Your task to perform on an android device: toggle improve location accuracy Image 0: 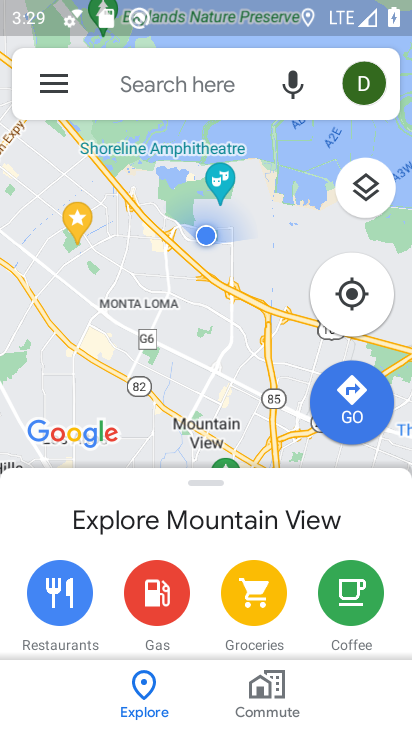
Step 0: press home button
Your task to perform on an android device: toggle improve location accuracy Image 1: 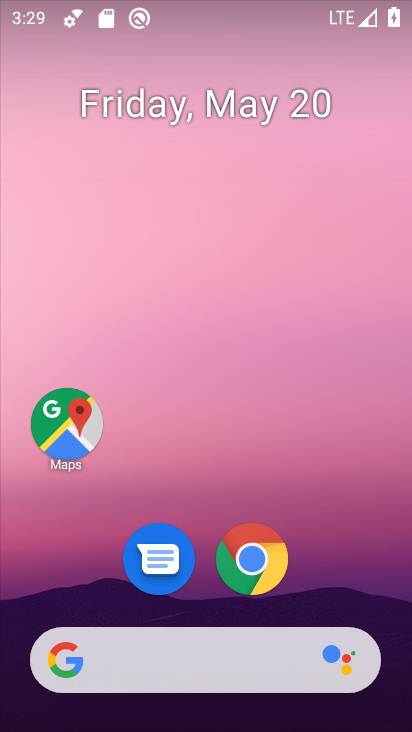
Step 1: drag from (234, 475) to (240, 64)
Your task to perform on an android device: toggle improve location accuracy Image 2: 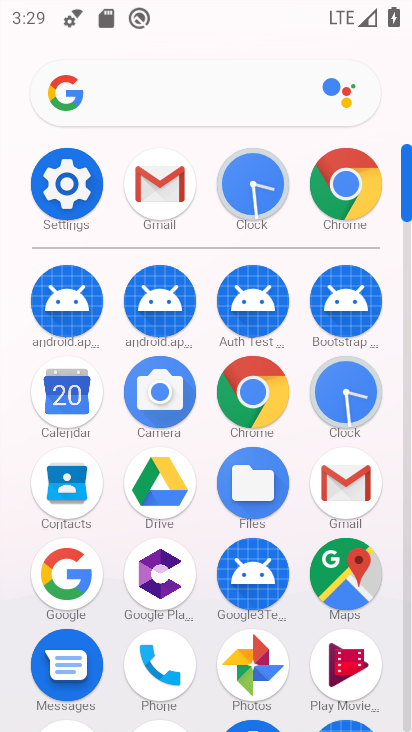
Step 2: click (72, 203)
Your task to perform on an android device: toggle improve location accuracy Image 3: 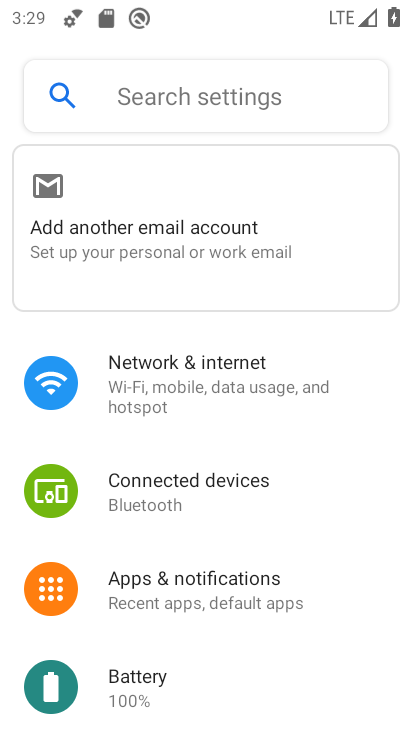
Step 3: drag from (200, 562) to (272, 127)
Your task to perform on an android device: toggle improve location accuracy Image 4: 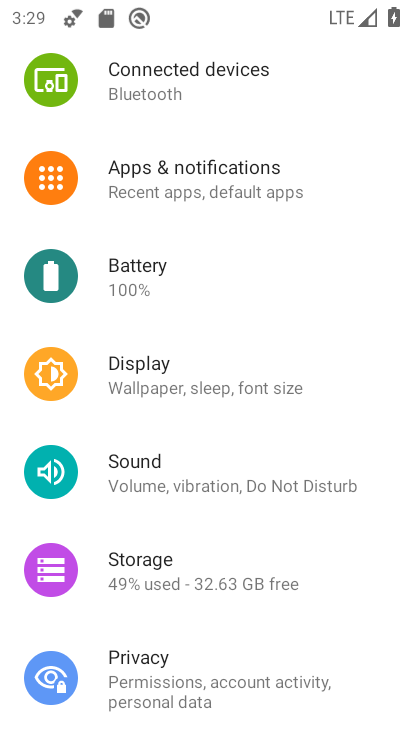
Step 4: drag from (258, 497) to (272, 157)
Your task to perform on an android device: toggle improve location accuracy Image 5: 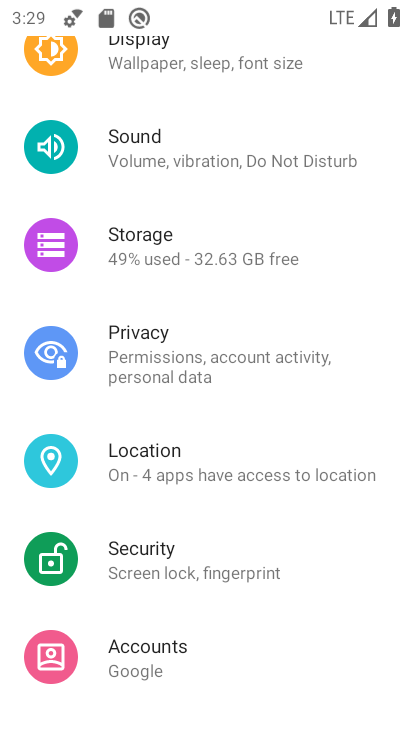
Step 5: click (229, 462)
Your task to perform on an android device: toggle improve location accuracy Image 6: 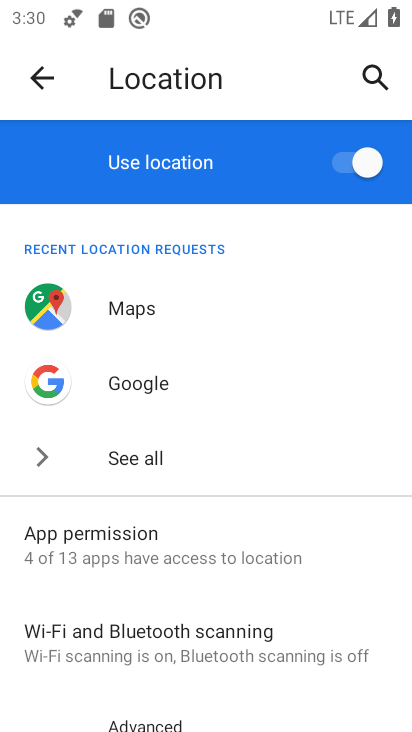
Step 6: drag from (203, 545) to (225, 190)
Your task to perform on an android device: toggle improve location accuracy Image 7: 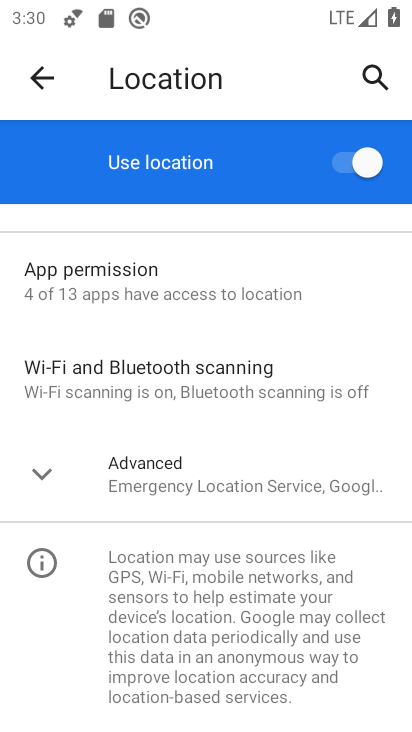
Step 7: click (42, 465)
Your task to perform on an android device: toggle improve location accuracy Image 8: 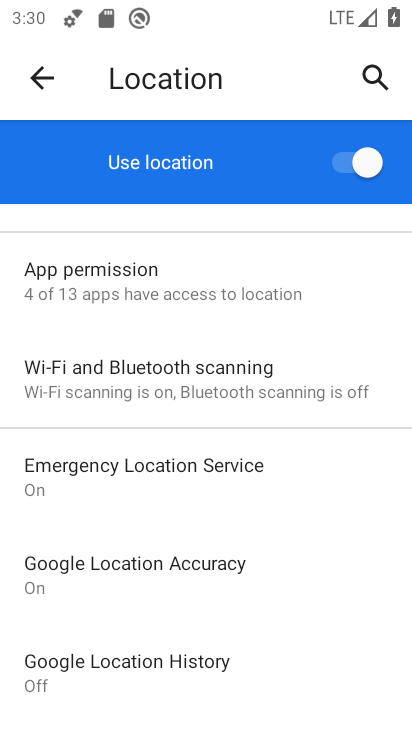
Step 8: click (167, 580)
Your task to perform on an android device: toggle improve location accuracy Image 9: 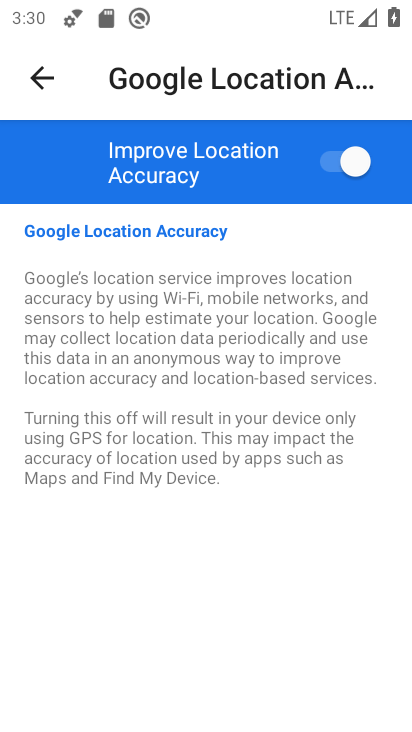
Step 9: click (337, 172)
Your task to perform on an android device: toggle improve location accuracy Image 10: 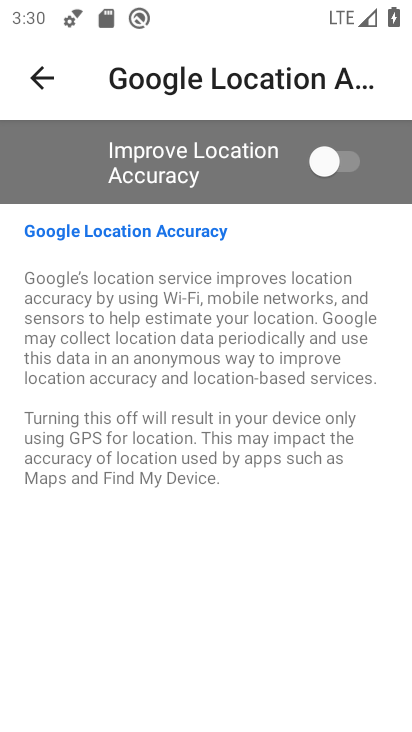
Step 10: task complete